Your task to perform on an android device: turn off translation in the chrome app Image 0: 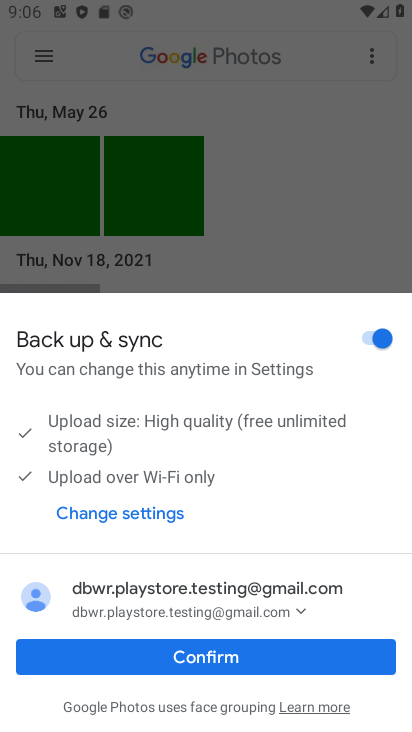
Step 0: press home button
Your task to perform on an android device: turn off translation in the chrome app Image 1: 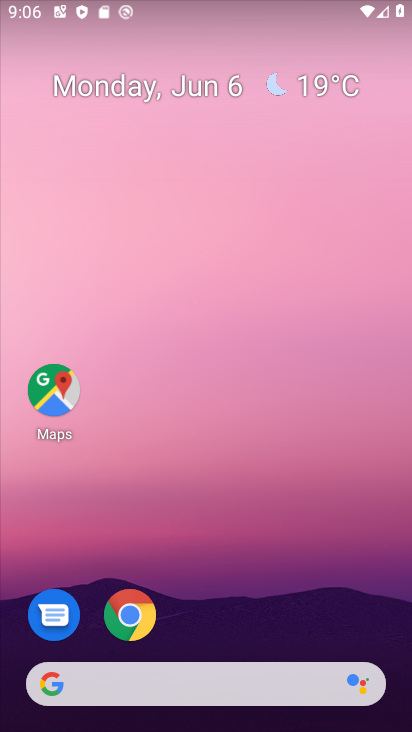
Step 1: click (128, 616)
Your task to perform on an android device: turn off translation in the chrome app Image 2: 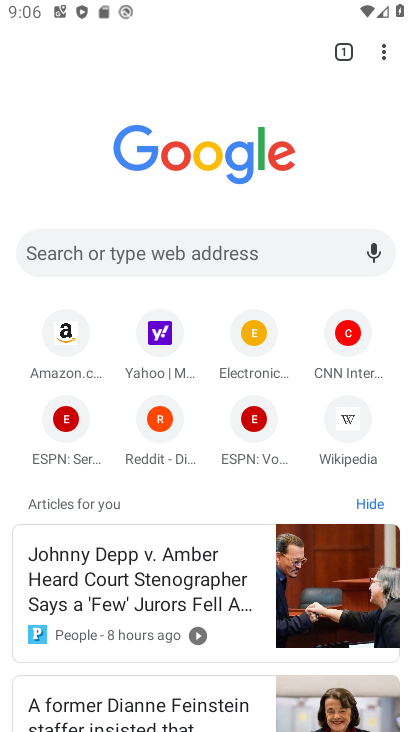
Step 2: click (385, 55)
Your task to perform on an android device: turn off translation in the chrome app Image 3: 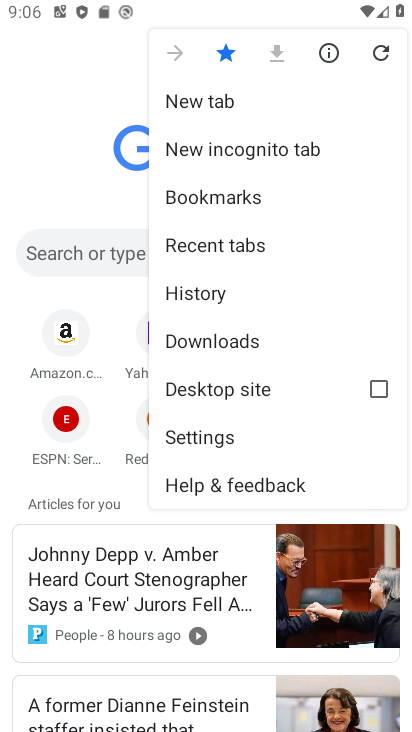
Step 3: click (222, 436)
Your task to perform on an android device: turn off translation in the chrome app Image 4: 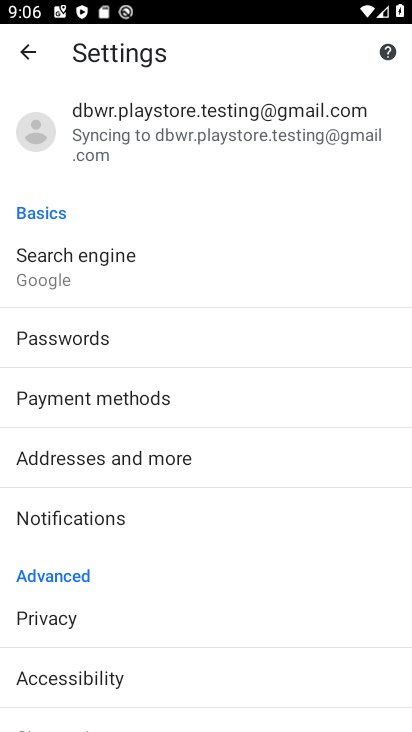
Step 4: drag from (117, 689) to (110, 379)
Your task to perform on an android device: turn off translation in the chrome app Image 5: 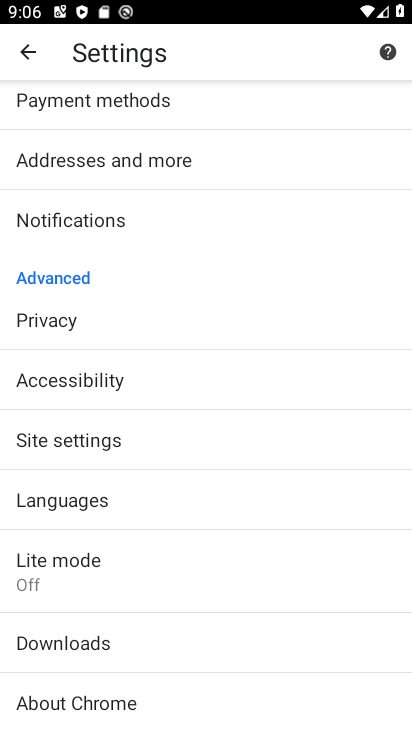
Step 5: click (84, 511)
Your task to perform on an android device: turn off translation in the chrome app Image 6: 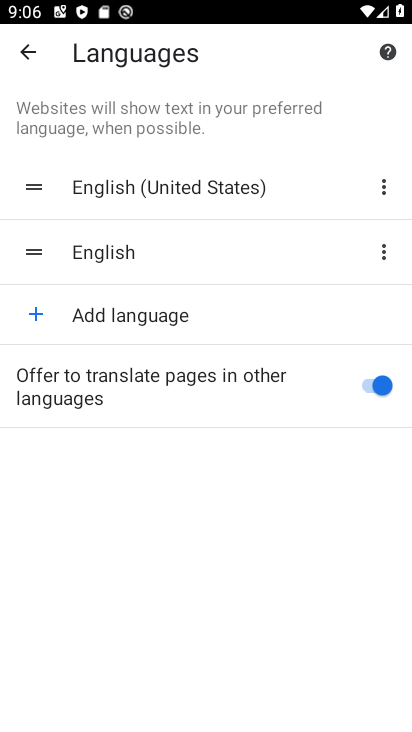
Step 6: click (374, 393)
Your task to perform on an android device: turn off translation in the chrome app Image 7: 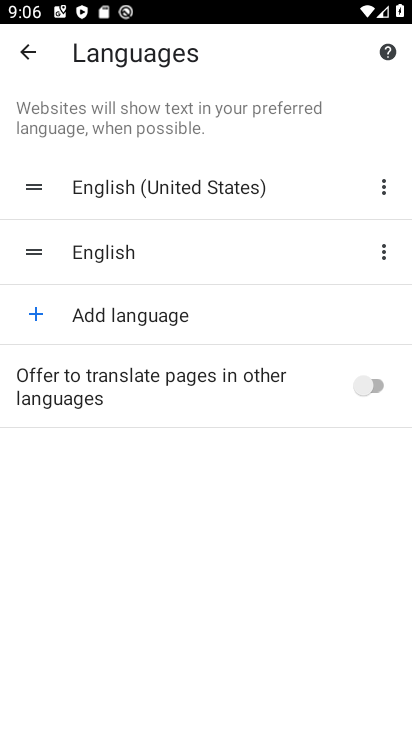
Step 7: task complete